Your task to perform on an android device: Open Yahoo.com Image 0: 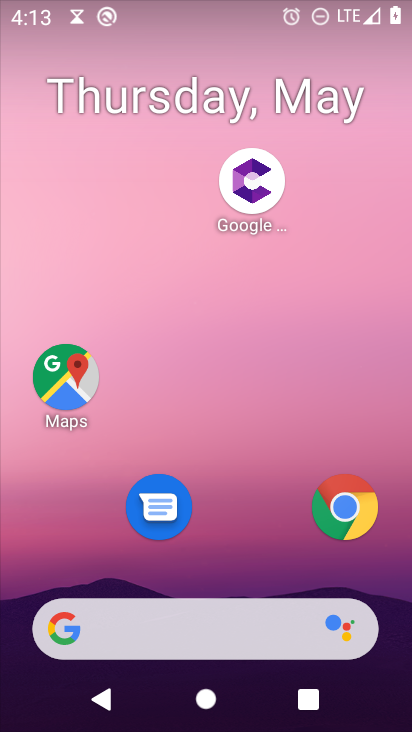
Step 0: press home button
Your task to perform on an android device: Open Yahoo.com Image 1: 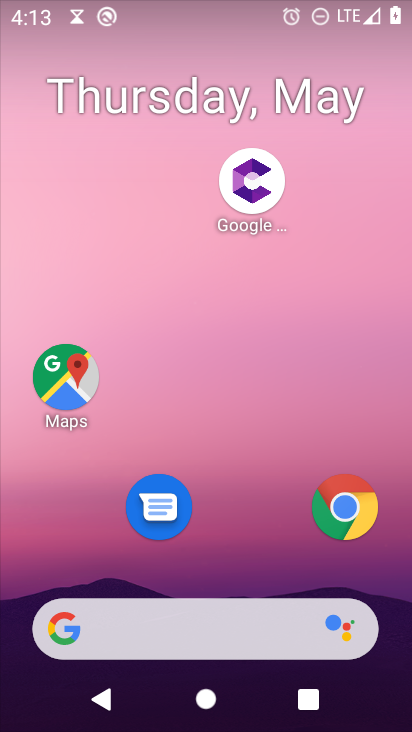
Step 1: click (205, 636)
Your task to perform on an android device: Open Yahoo.com Image 2: 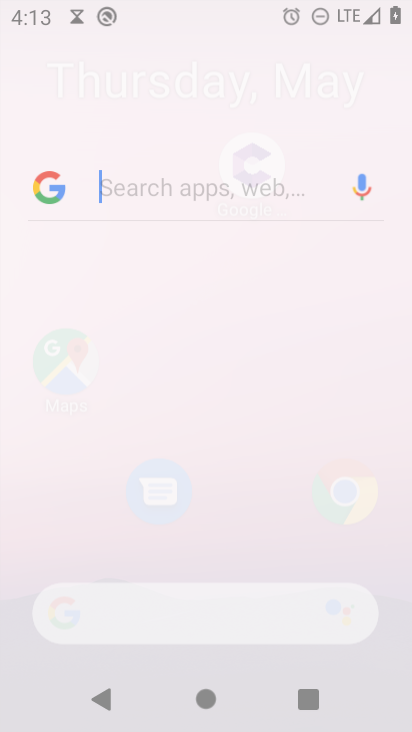
Step 2: click (205, 636)
Your task to perform on an android device: Open Yahoo.com Image 3: 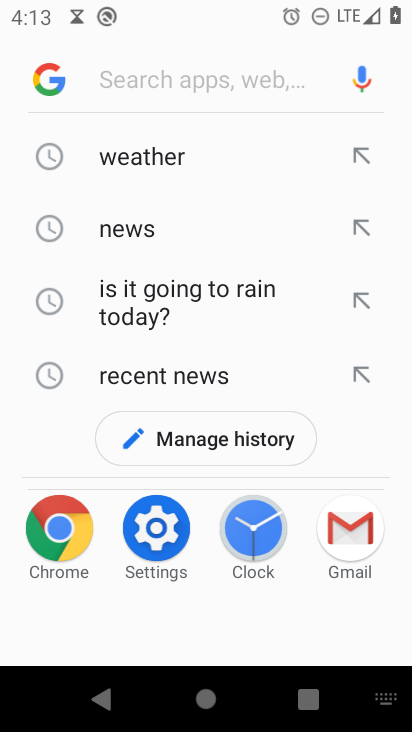
Step 3: press home button
Your task to perform on an android device: Open Yahoo.com Image 4: 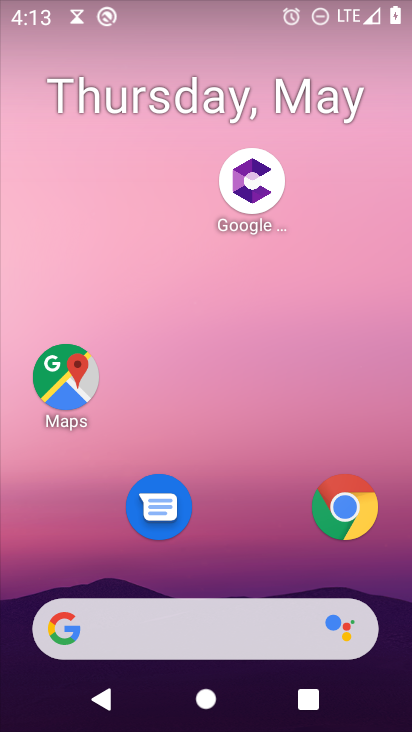
Step 4: click (75, 622)
Your task to perform on an android device: Open Yahoo.com Image 5: 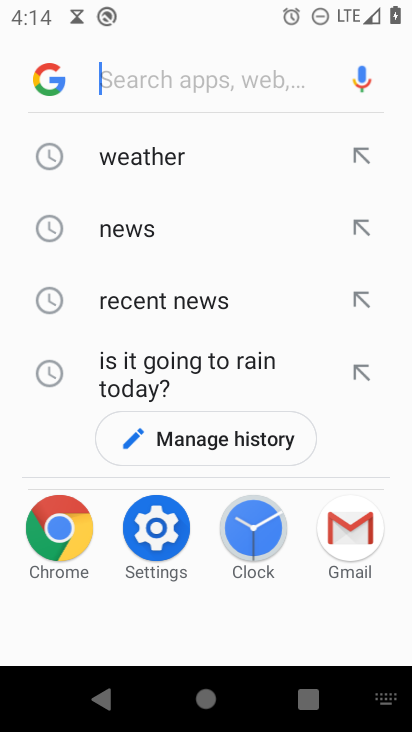
Step 5: type "Yahoo.com"
Your task to perform on an android device: Open Yahoo.com Image 6: 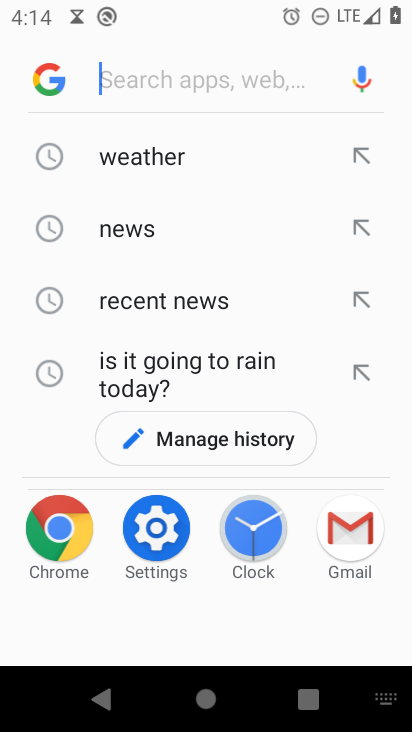
Step 6: click (145, 74)
Your task to perform on an android device: Open Yahoo.com Image 7: 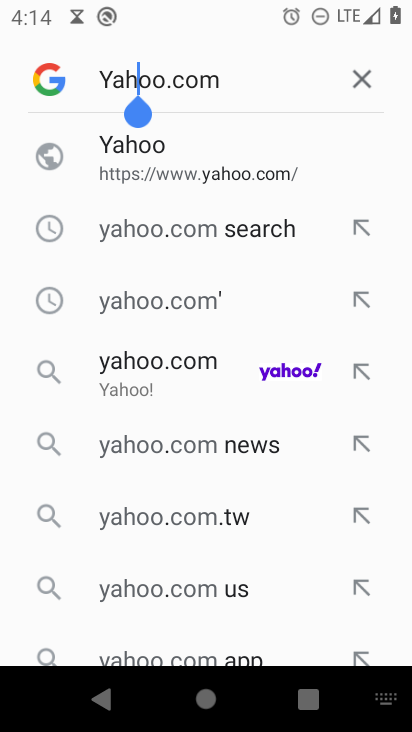
Step 7: click (129, 153)
Your task to perform on an android device: Open Yahoo.com Image 8: 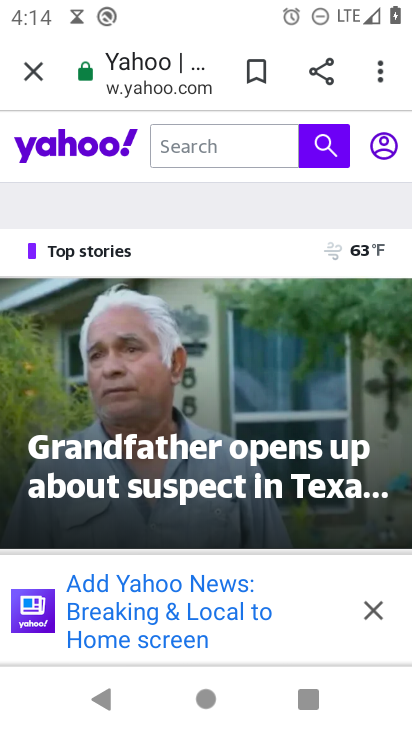
Step 8: task complete